Your task to perform on an android device: turn pop-ups off in chrome Image 0: 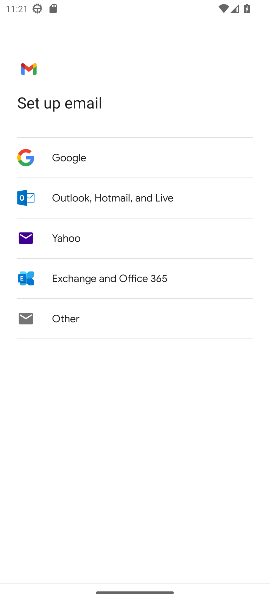
Step 0: press home button
Your task to perform on an android device: turn pop-ups off in chrome Image 1: 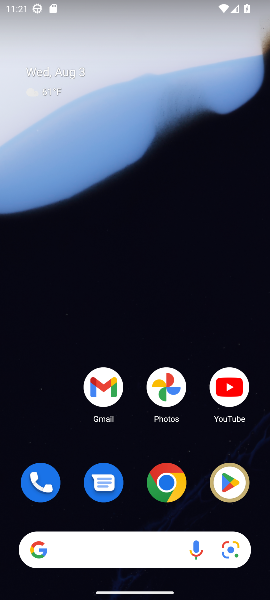
Step 1: click (176, 495)
Your task to perform on an android device: turn pop-ups off in chrome Image 2: 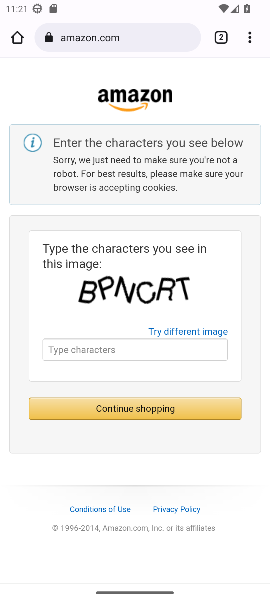
Step 2: click (248, 46)
Your task to perform on an android device: turn pop-ups off in chrome Image 3: 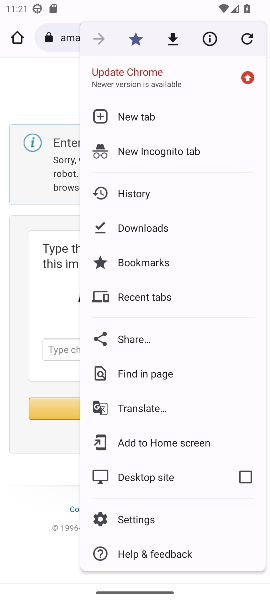
Step 3: click (127, 511)
Your task to perform on an android device: turn pop-ups off in chrome Image 4: 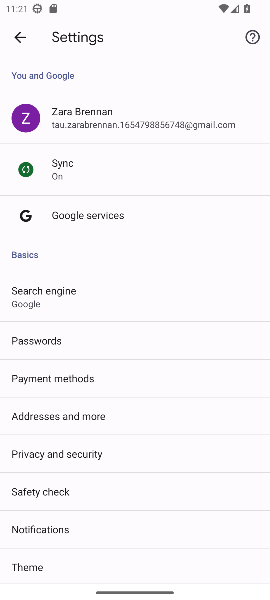
Step 4: task complete